Your task to perform on an android device: empty trash in google photos Image 0: 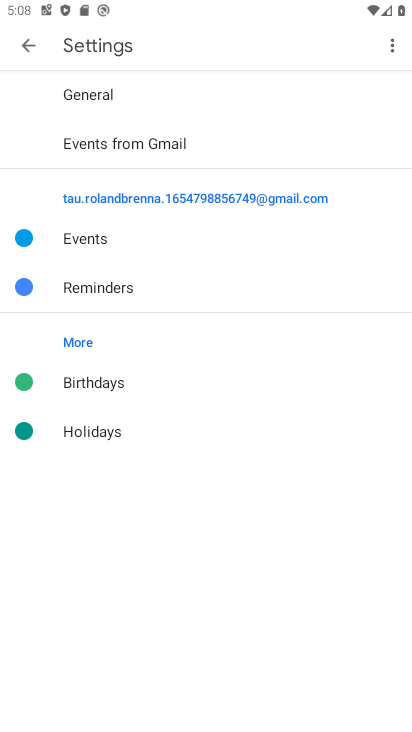
Step 0: press home button
Your task to perform on an android device: empty trash in google photos Image 1: 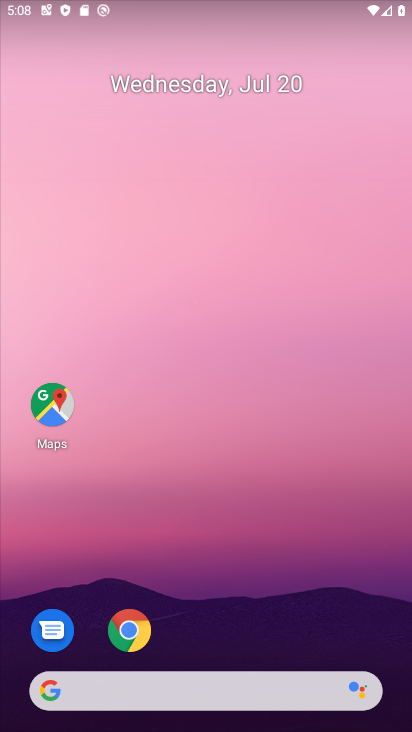
Step 1: drag from (271, 670) to (313, 37)
Your task to perform on an android device: empty trash in google photos Image 2: 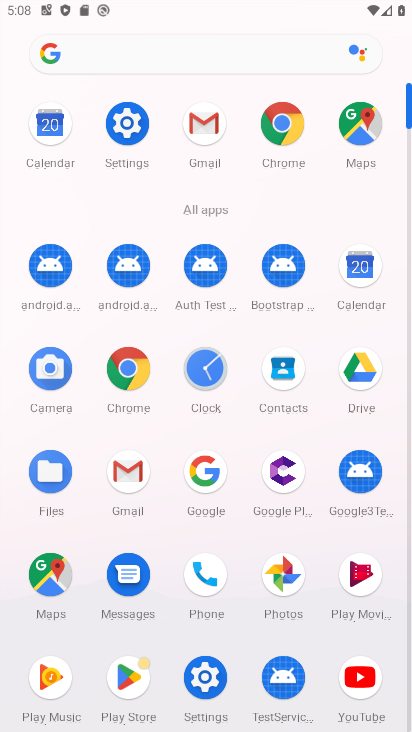
Step 2: click (284, 574)
Your task to perform on an android device: empty trash in google photos Image 3: 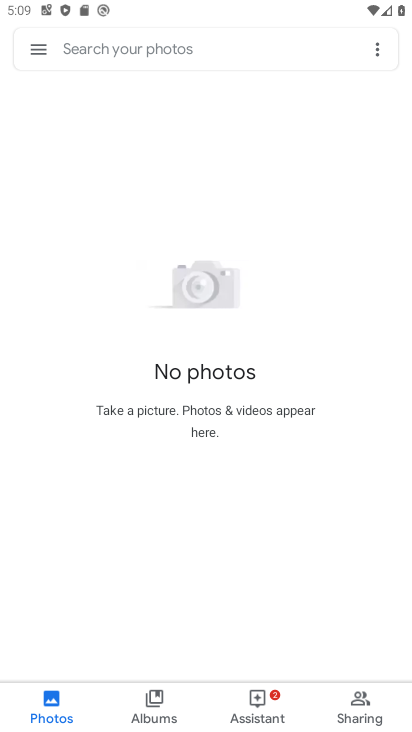
Step 3: click (38, 47)
Your task to perform on an android device: empty trash in google photos Image 4: 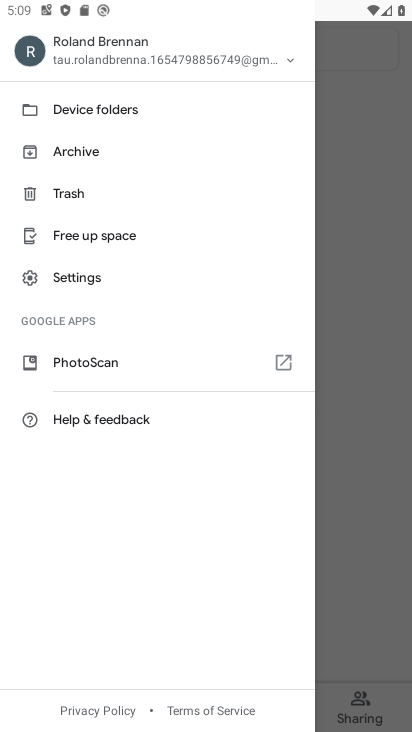
Step 4: click (101, 190)
Your task to perform on an android device: empty trash in google photos Image 5: 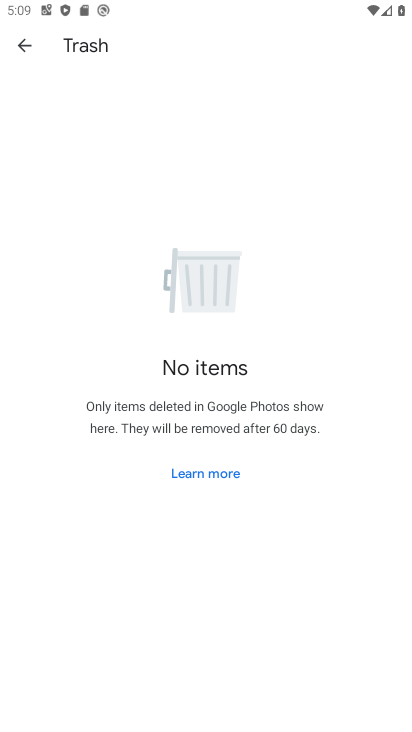
Step 5: task complete